Your task to perform on an android device: turn notification dots off Image 0: 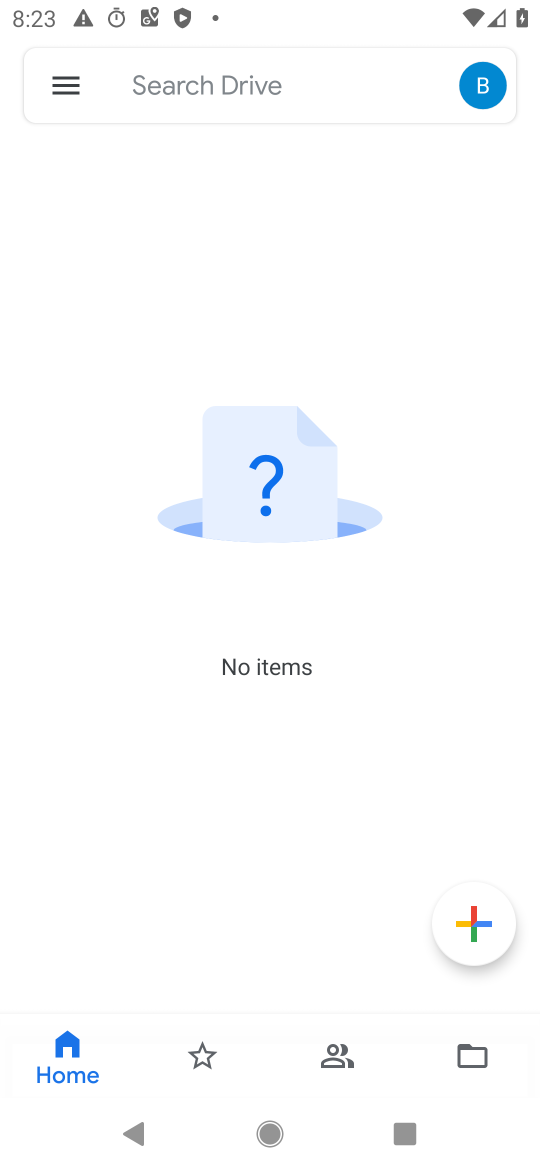
Step 0: press home button
Your task to perform on an android device: turn notification dots off Image 1: 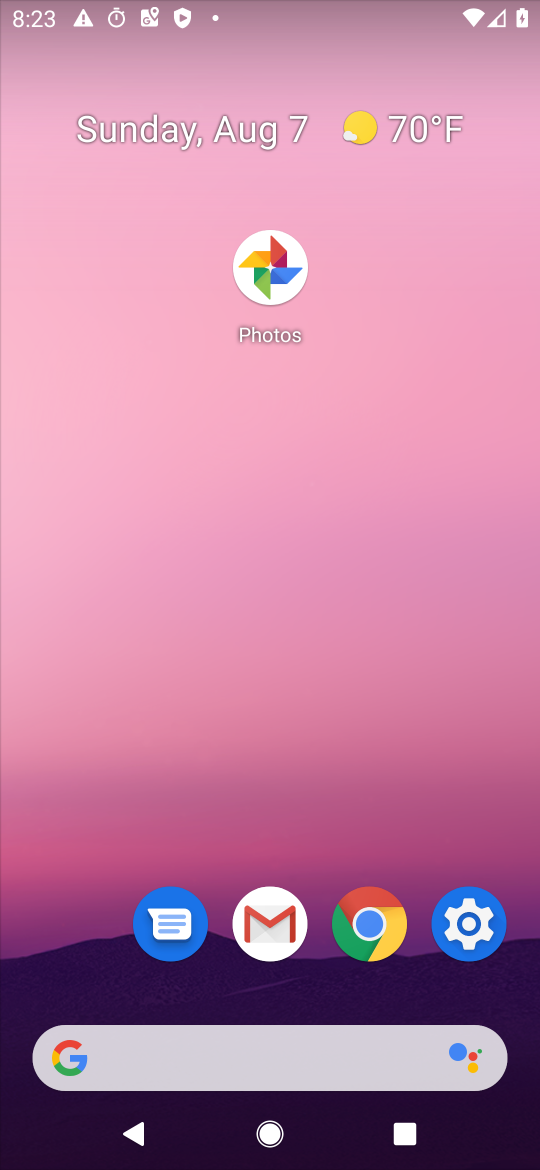
Step 1: drag from (288, 1087) to (316, 304)
Your task to perform on an android device: turn notification dots off Image 2: 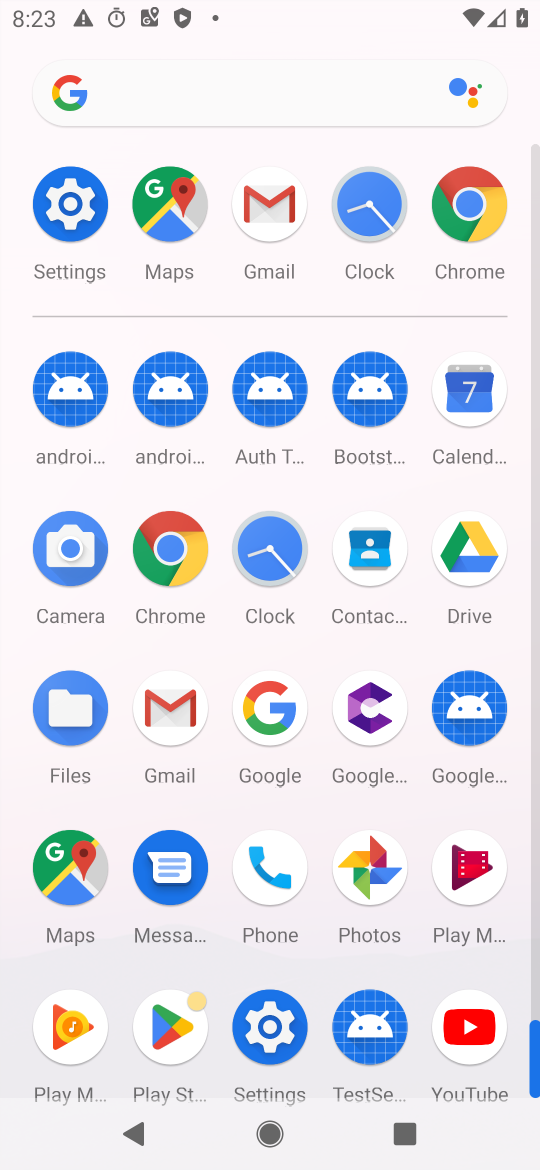
Step 2: click (74, 220)
Your task to perform on an android device: turn notification dots off Image 3: 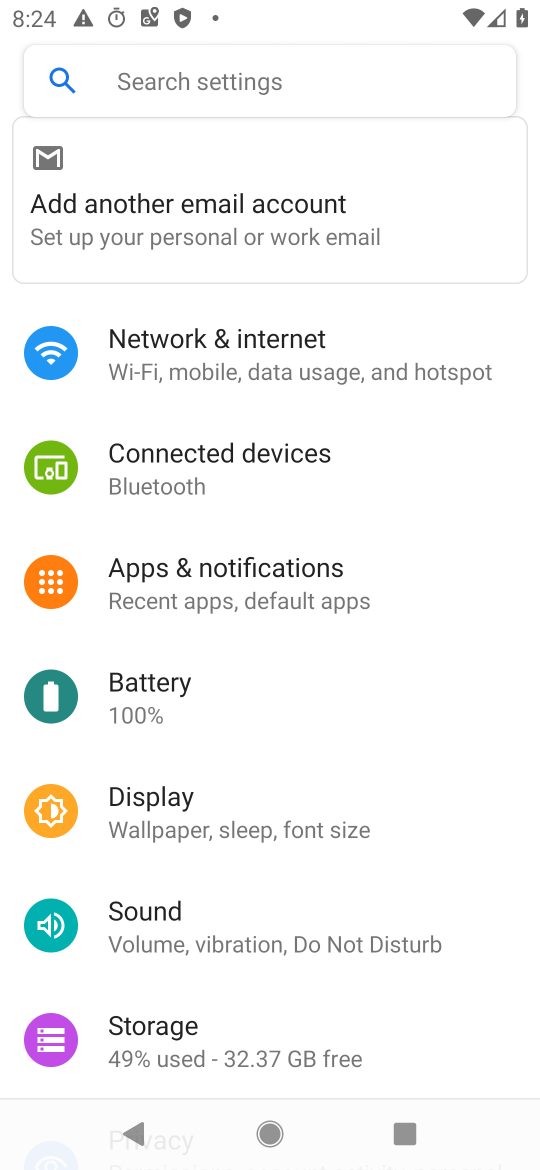
Step 3: click (167, 75)
Your task to perform on an android device: turn notification dots off Image 4: 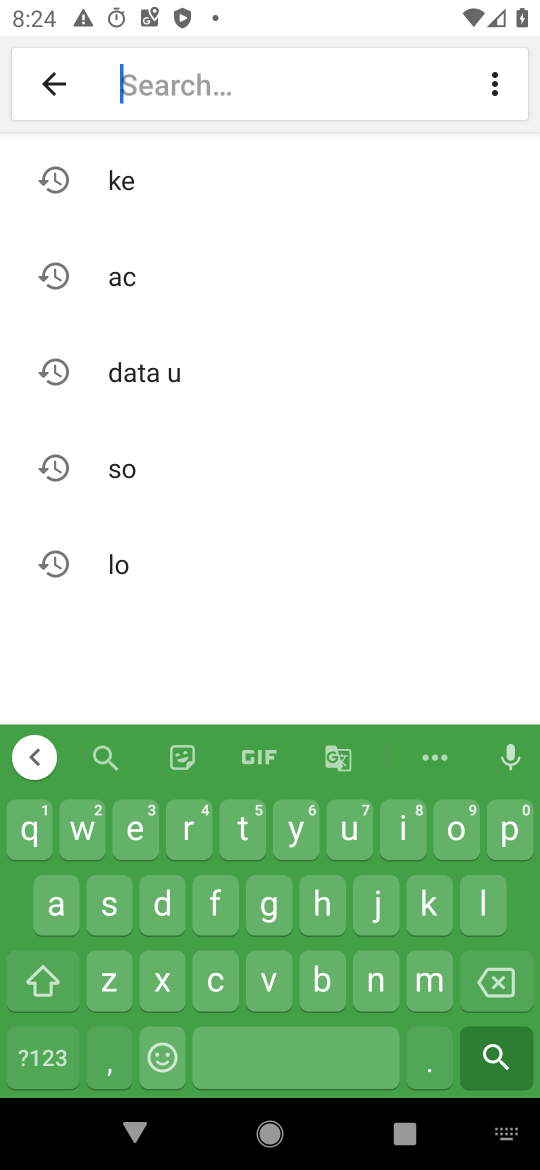
Step 4: click (383, 988)
Your task to perform on an android device: turn notification dots off Image 5: 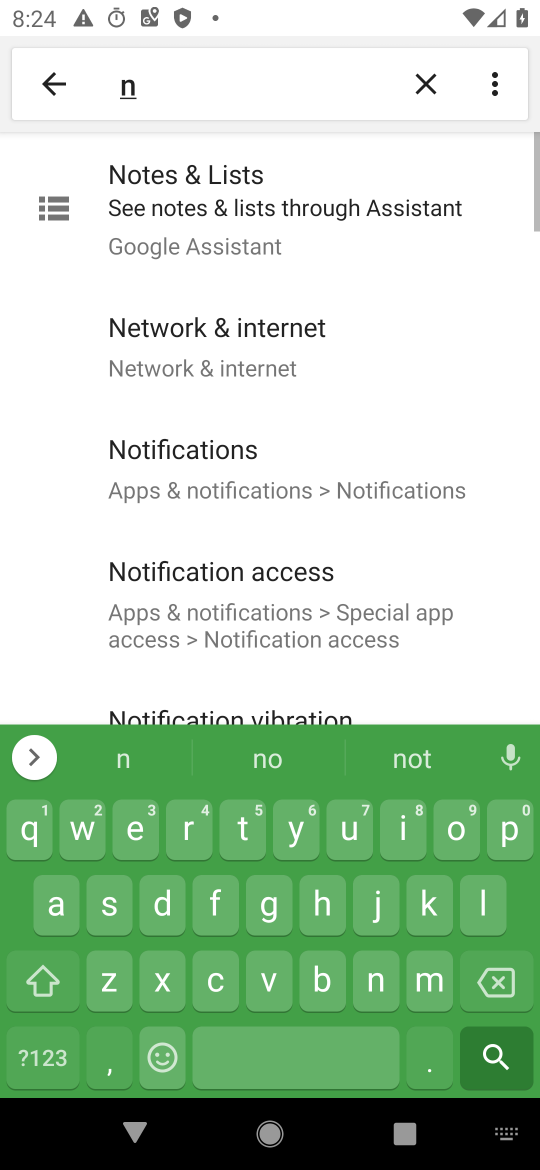
Step 5: click (447, 831)
Your task to perform on an android device: turn notification dots off Image 6: 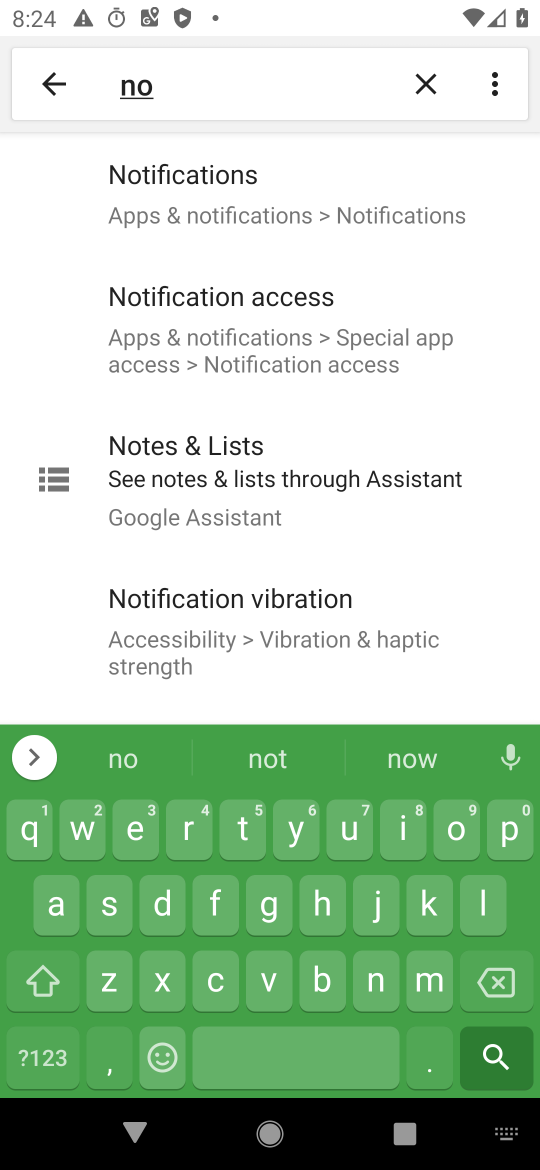
Step 6: click (306, 214)
Your task to perform on an android device: turn notification dots off Image 7: 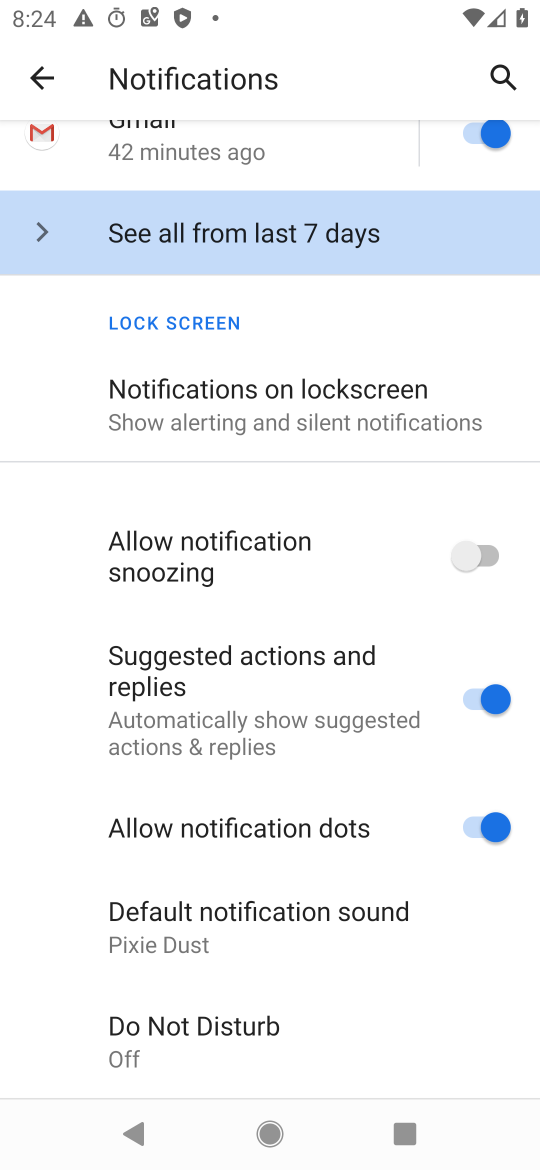
Step 7: click (241, 386)
Your task to perform on an android device: turn notification dots off Image 8: 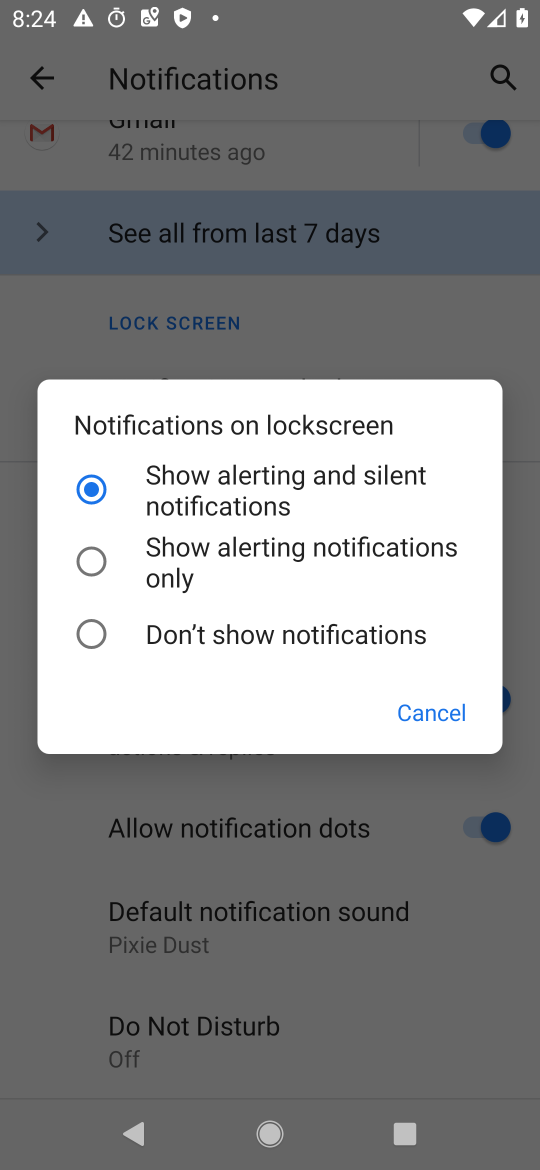
Step 8: click (207, 241)
Your task to perform on an android device: turn notification dots off Image 9: 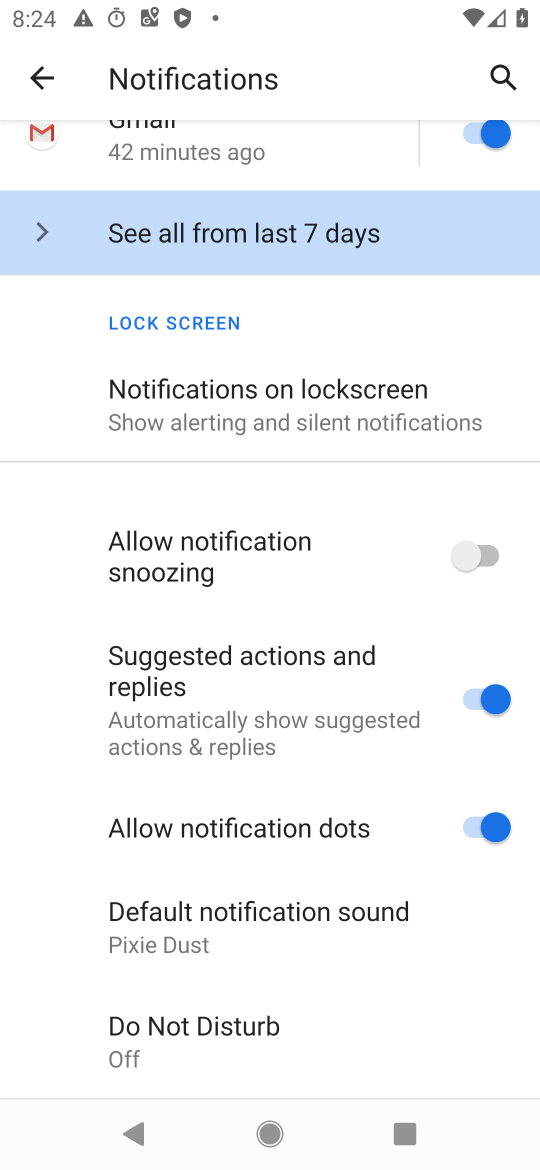
Step 9: click (476, 820)
Your task to perform on an android device: turn notification dots off Image 10: 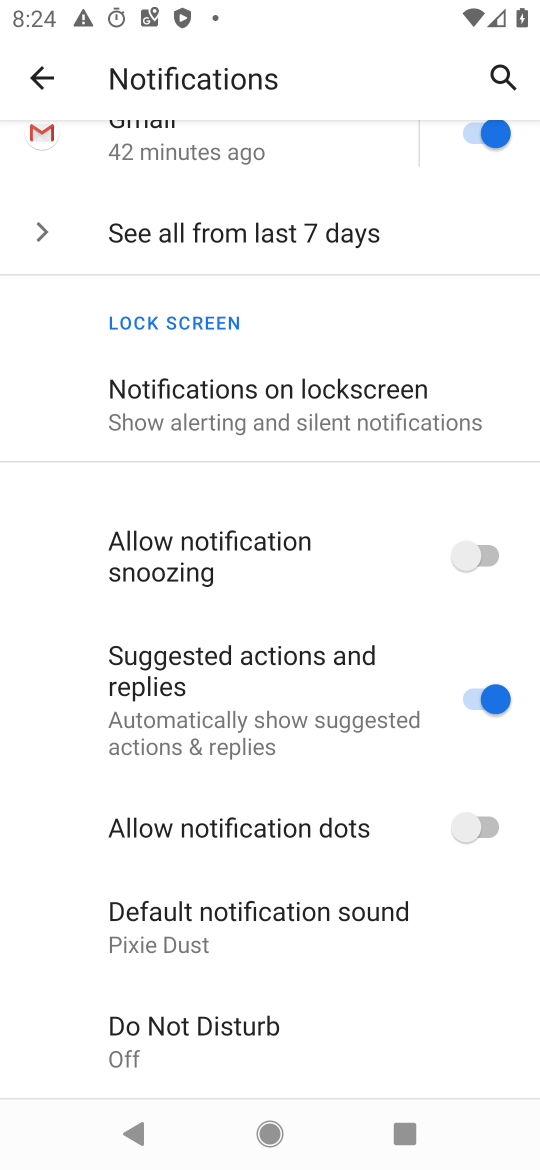
Step 10: task complete